Your task to perform on an android device: open app "Pinterest" (install if not already installed) Image 0: 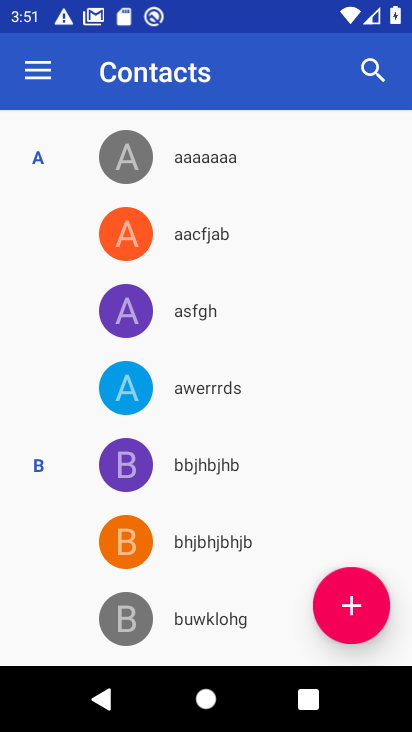
Step 0: press home button
Your task to perform on an android device: open app "Pinterest" (install if not already installed) Image 1: 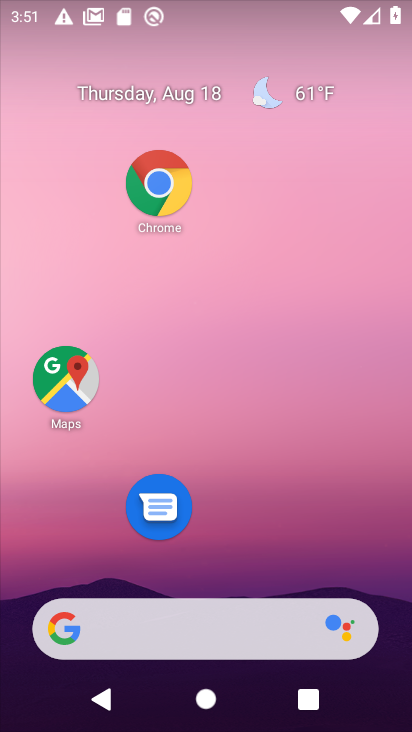
Step 1: drag from (247, 486) to (298, 100)
Your task to perform on an android device: open app "Pinterest" (install if not already installed) Image 2: 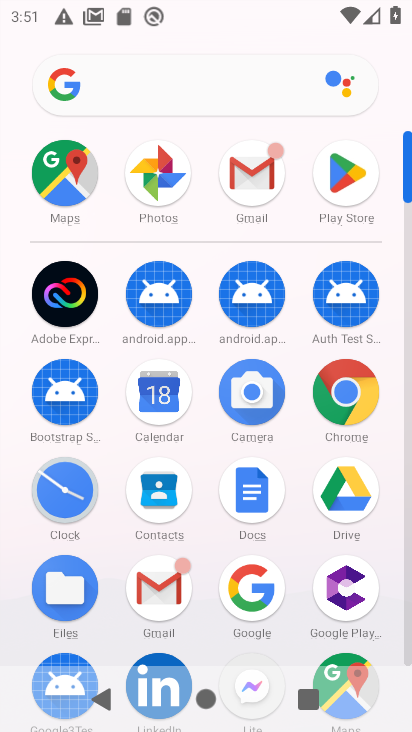
Step 2: click (328, 181)
Your task to perform on an android device: open app "Pinterest" (install if not already installed) Image 3: 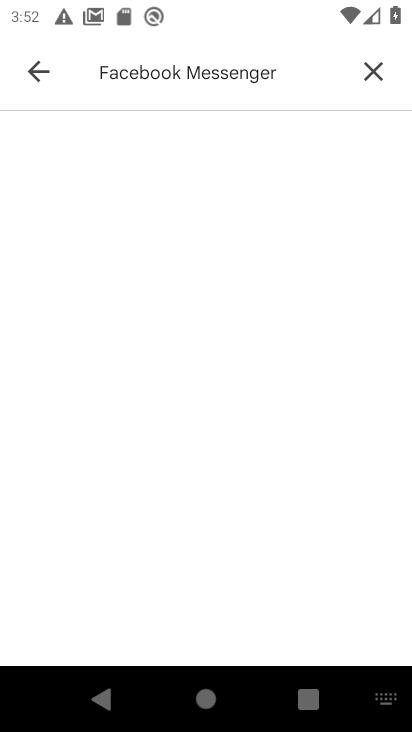
Step 3: click (361, 64)
Your task to perform on an android device: open app "Pinterest" (install if not already installed) Image 4: 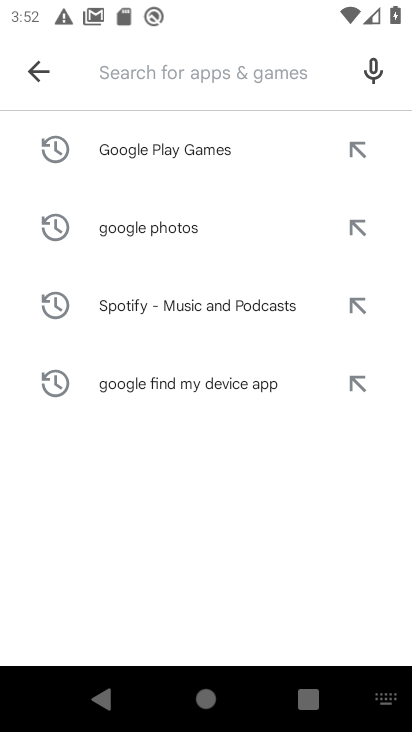
Step 4: click (254, 74)
Your task to perform on an android device: open app "Pinterest" (install if not already installed) Image 5: 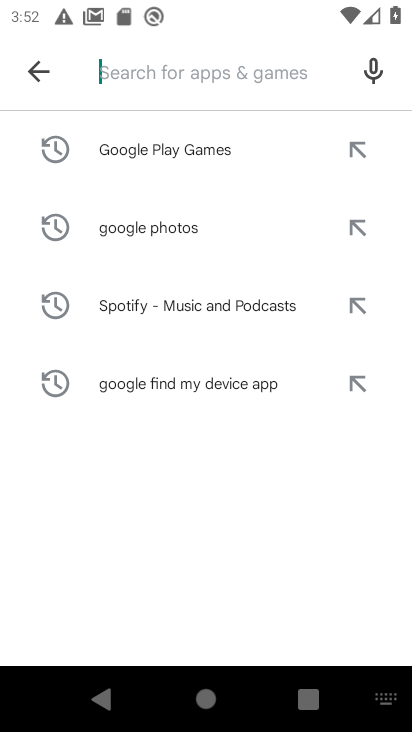
Step 5: type "pinterest"
Your task to perform on an android device: open app "Pinterest" (install if not already installed) Image 6: 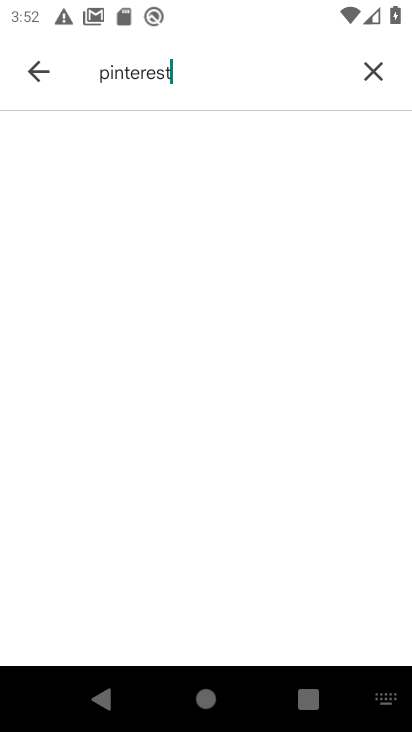
Step 6: task complete